Your task to perform on an android device: turn on javascript in the chrome app Image 0: 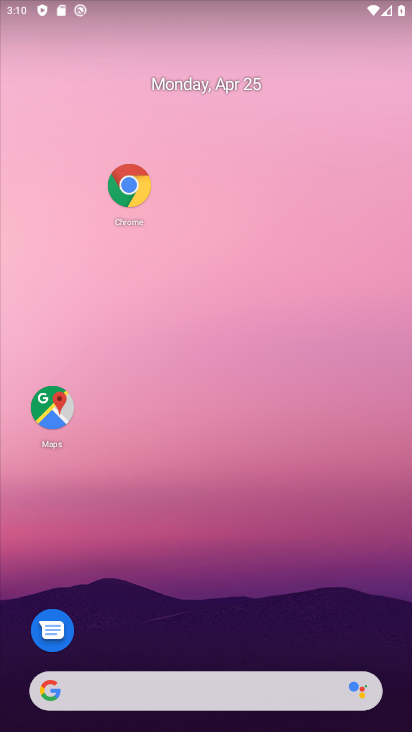
Step 0: click (128, 185)
Your task to perform on an android device: turn on javascript in the chrome app Image 1: 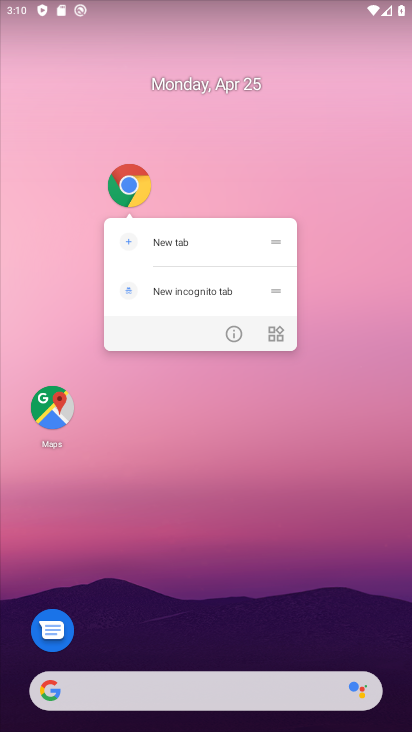
Step 1: click (237, 332)
Your task to perform on an android device: turn on javascript in the chrome app Image 2: 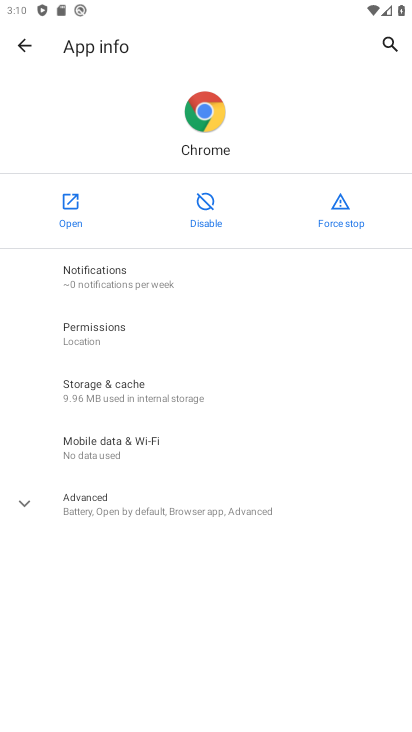
Step 2: click (77, 208)
Your task to perform on an android device: turn on javascript in the chrome app Image 3: 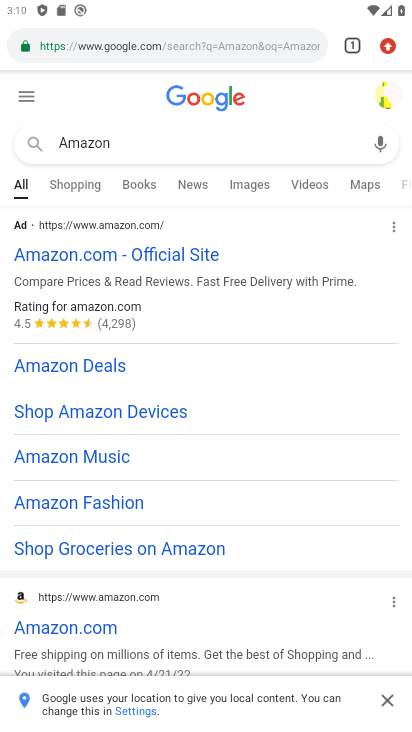
Step 3: click (389, 45)
Your task to perform on an android device: turn on javascript in the chrome app Image 4: 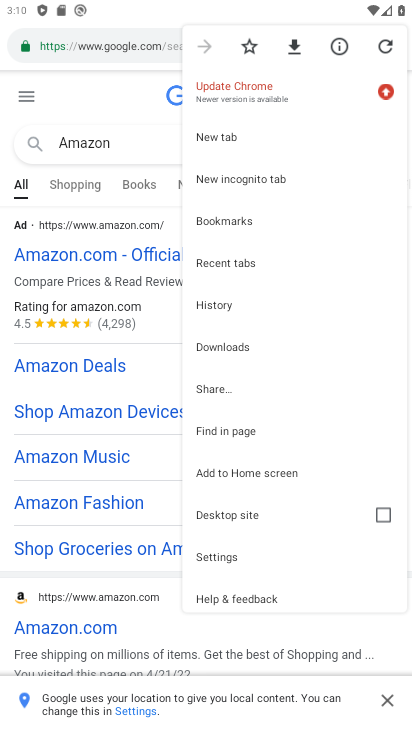
Step 4: click (389, 48)
Your task to perform on an android device: turn on javascript in the chrome app Image 5: 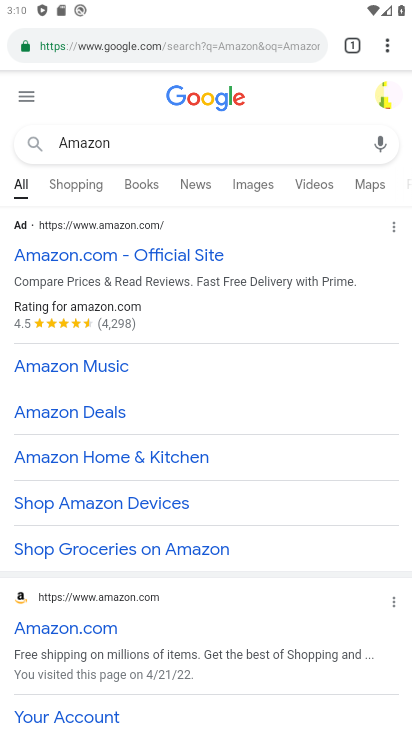
Step 5: click (389, 48)
Your task to perform on an android device: turn on javascript in the chrome app Image 6: 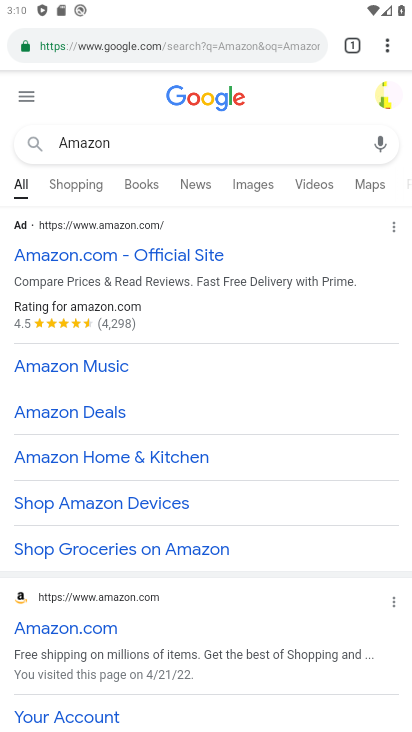
Step 6: click (389, 48)
Your task to perform on an android device: turn on javascript in the chrome app Image 7: 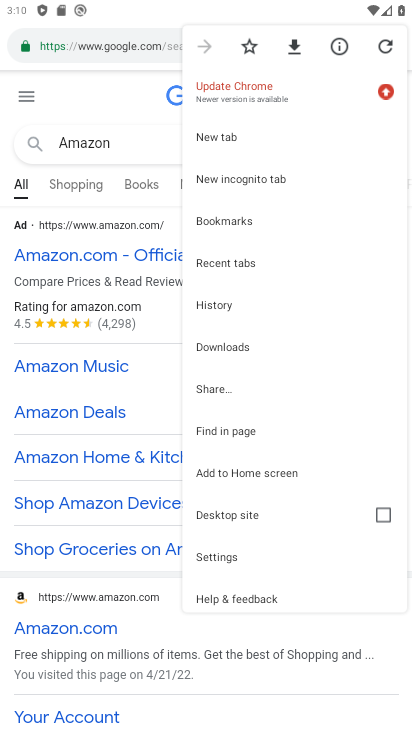
Step 7: click (234, 552)
Your task to perform on an android device: turn on javascript in the chrome app Image 8: 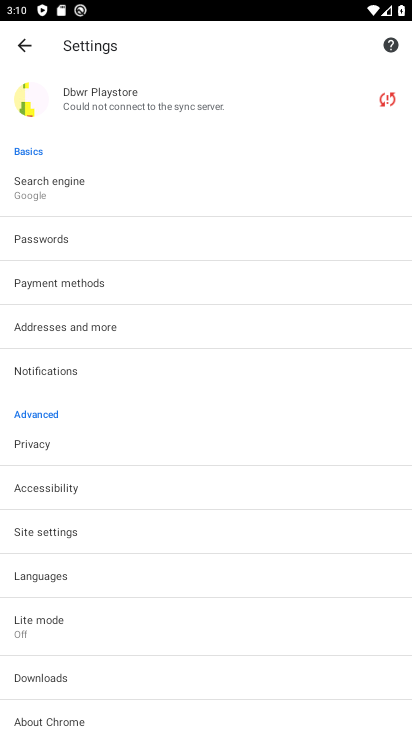
Step 8: click (85, 526)
Your task to perform on an android device: turn on javascript in the chrome app Image 9: 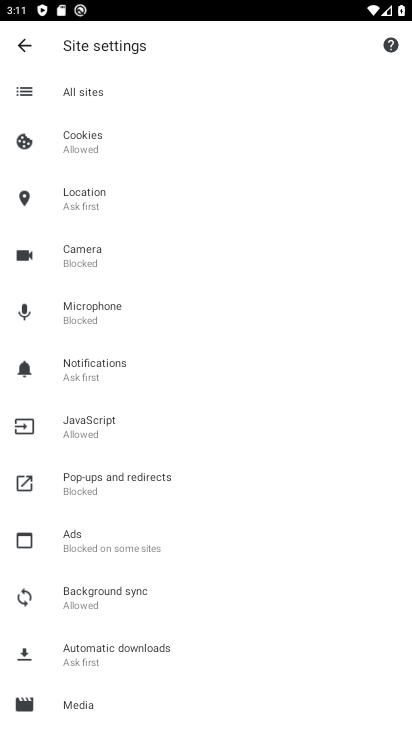
Step 9: drag from (116, 587) to (155, 303)
Your task to perform on an android device: turn on javascript in the chrome app Image 10: 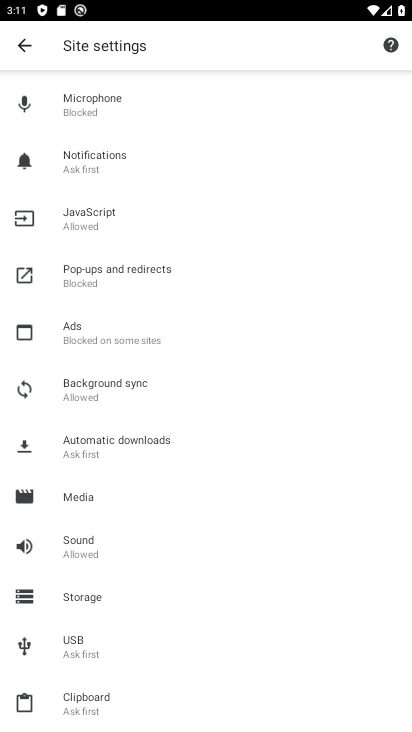
Step 10: click (105, 215)
Your task to perform on an android device: turn on javascript in the chrome app Image 11: 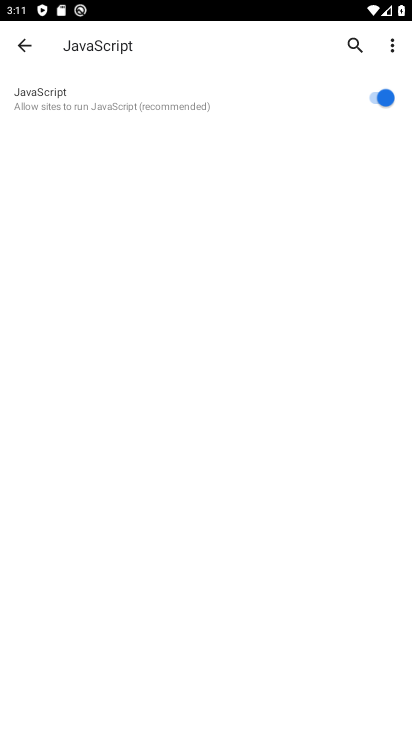
Step 11: task complete